Your task to perform on an android device: Open Amazon Image 0: 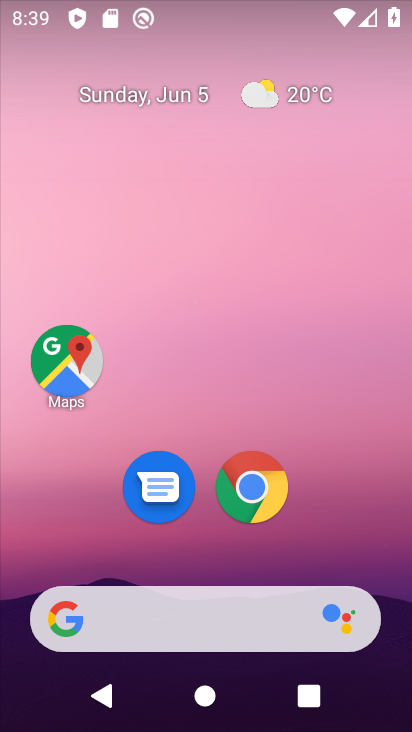
Step 0: drag from (179, 494) to (151, 156)
Your task to perform on an android device: Open Amazon Image 1: 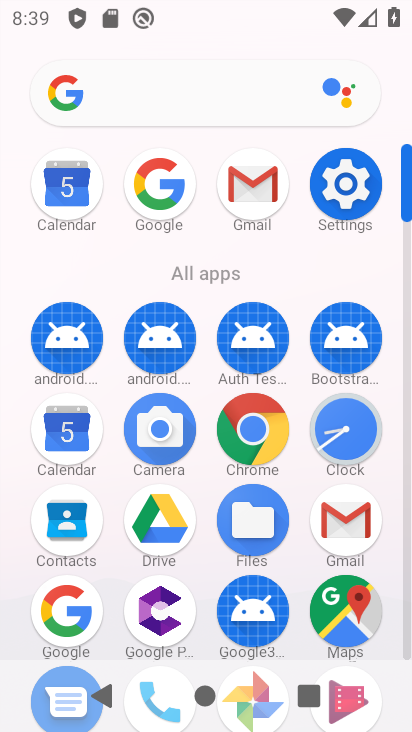
Step 1: click (252, 436)
Your task to perform on an android device: Open Amazon Image 2: 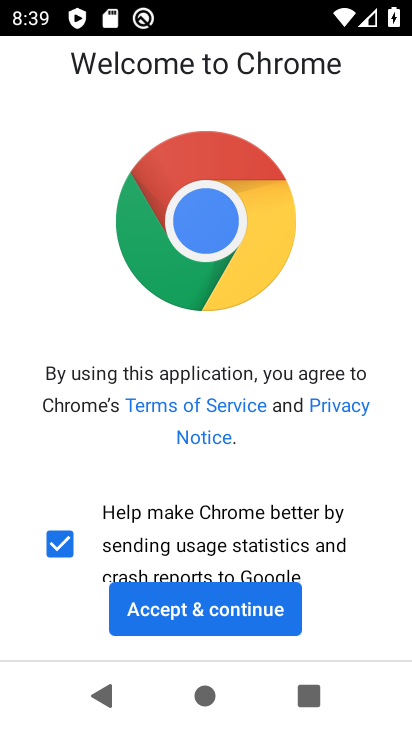
Step 2: click (218, 616)
Your task to perform on an android device: Open Amazon Image 3: 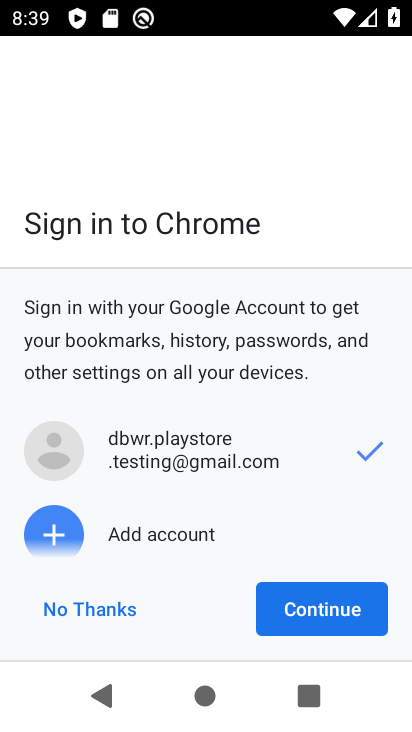
Step 3: click (356, 599)
Your task to perform on an android device: Open Amazon Image 4: 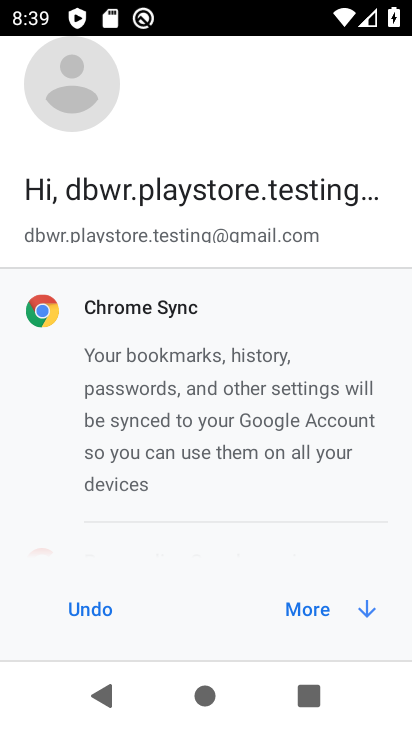
Step 4: click (313, 619)
Your task to perform on an android device: Open Amazon Image 5: 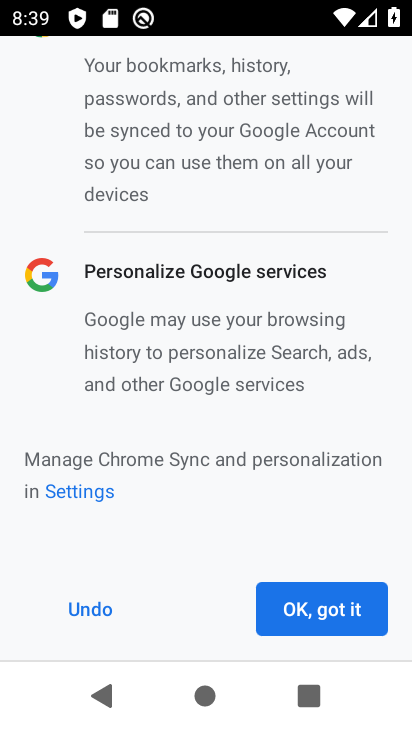
Step 5: click (364, 620)
Your task to perform on an android device: Open Amazon Image 6: 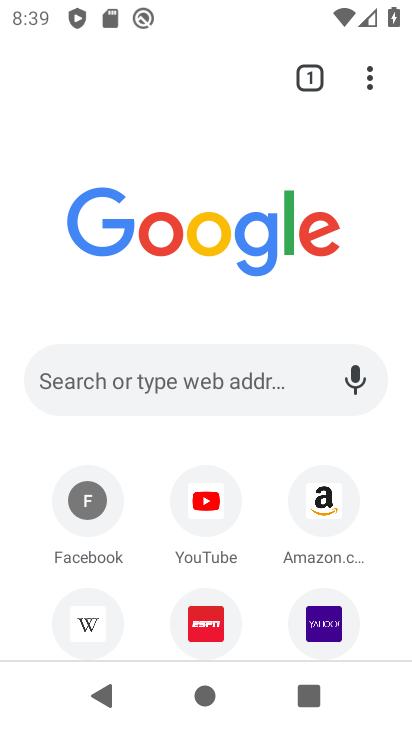
Step 6: click (328, 510)
Your task to perform on an android device: Open Amazon Image 7: 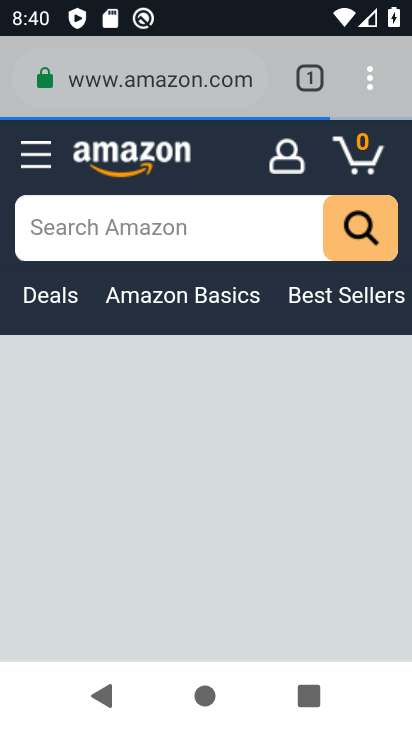
Step 7: task complete